Your task to perform on an android device: check google app version Image 0: 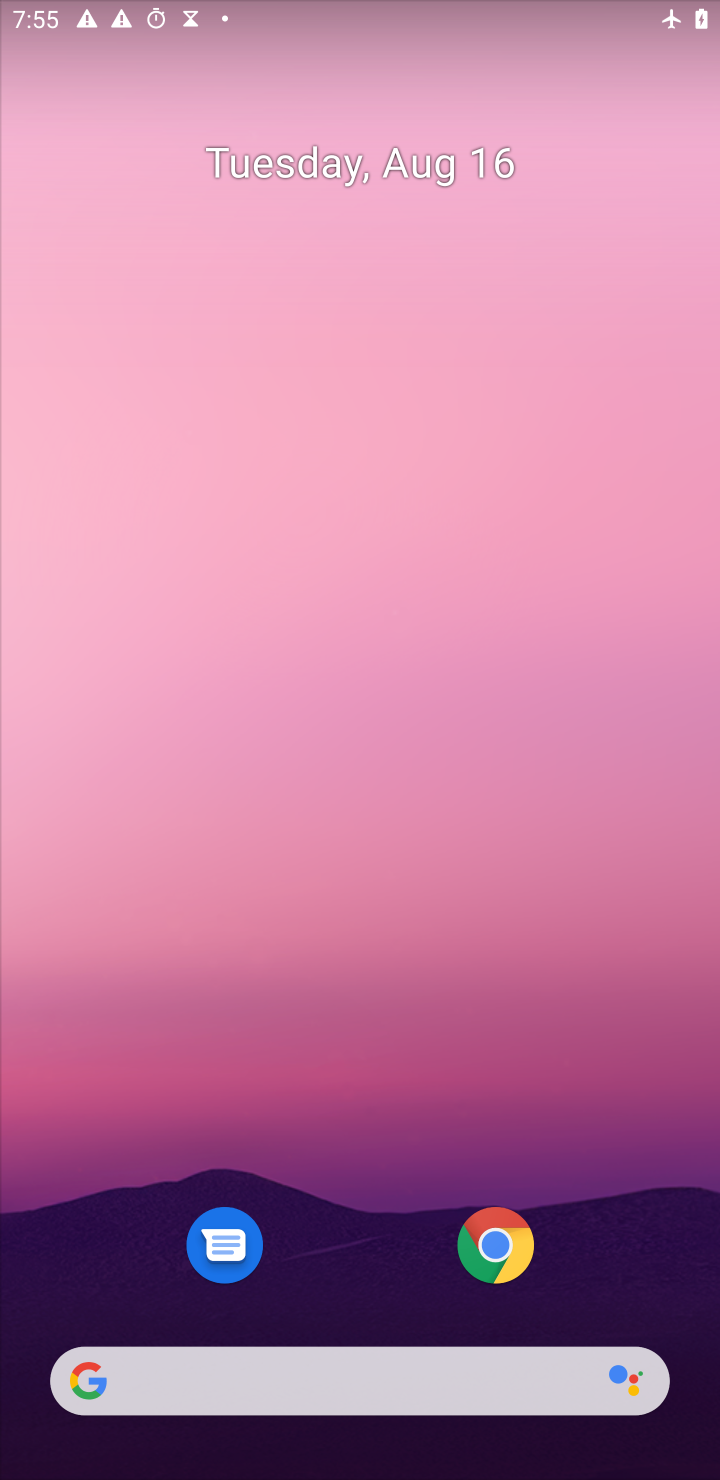
Step 0: press home button
Your task to perform on an android device: check google app version Image 1: 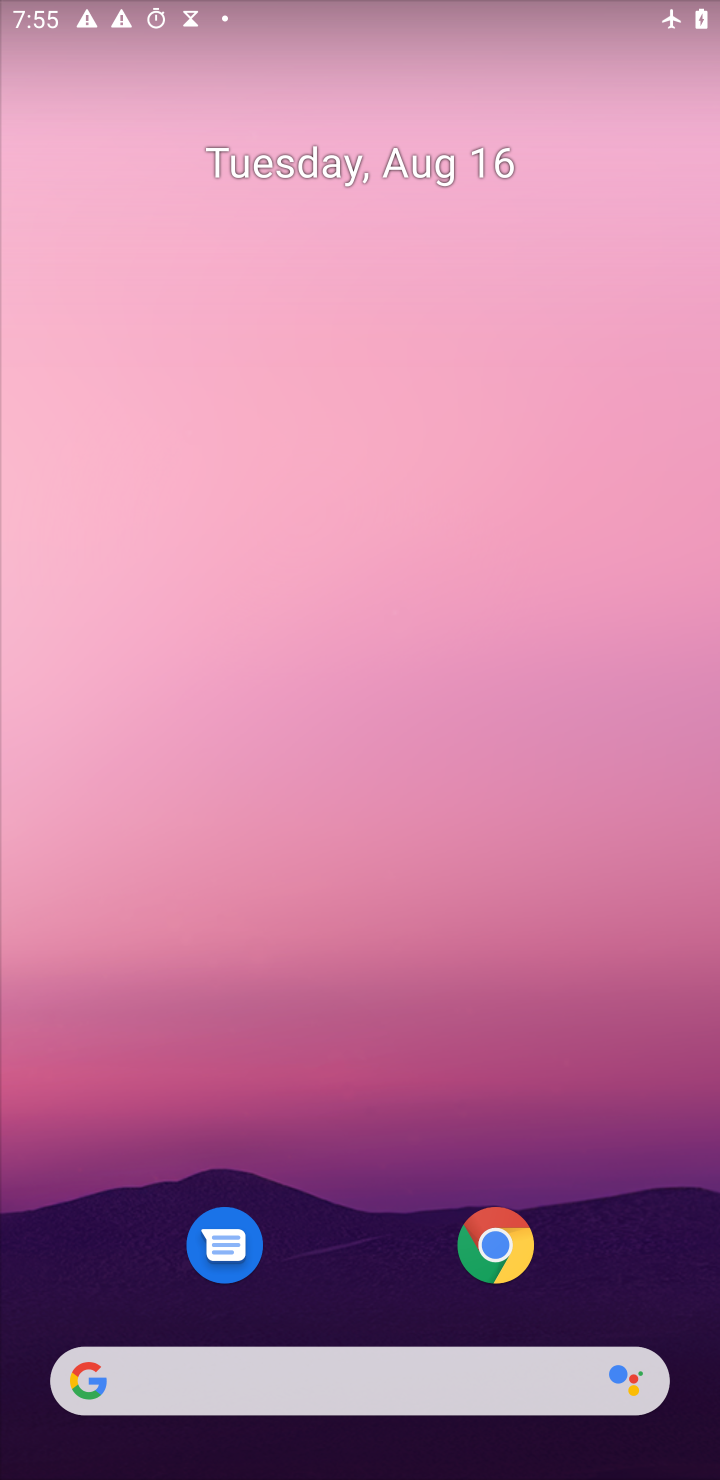
Step 1: drag from (347, 1279) to (349, 114)
Your task to perform on an android device: check google app version Image 2: 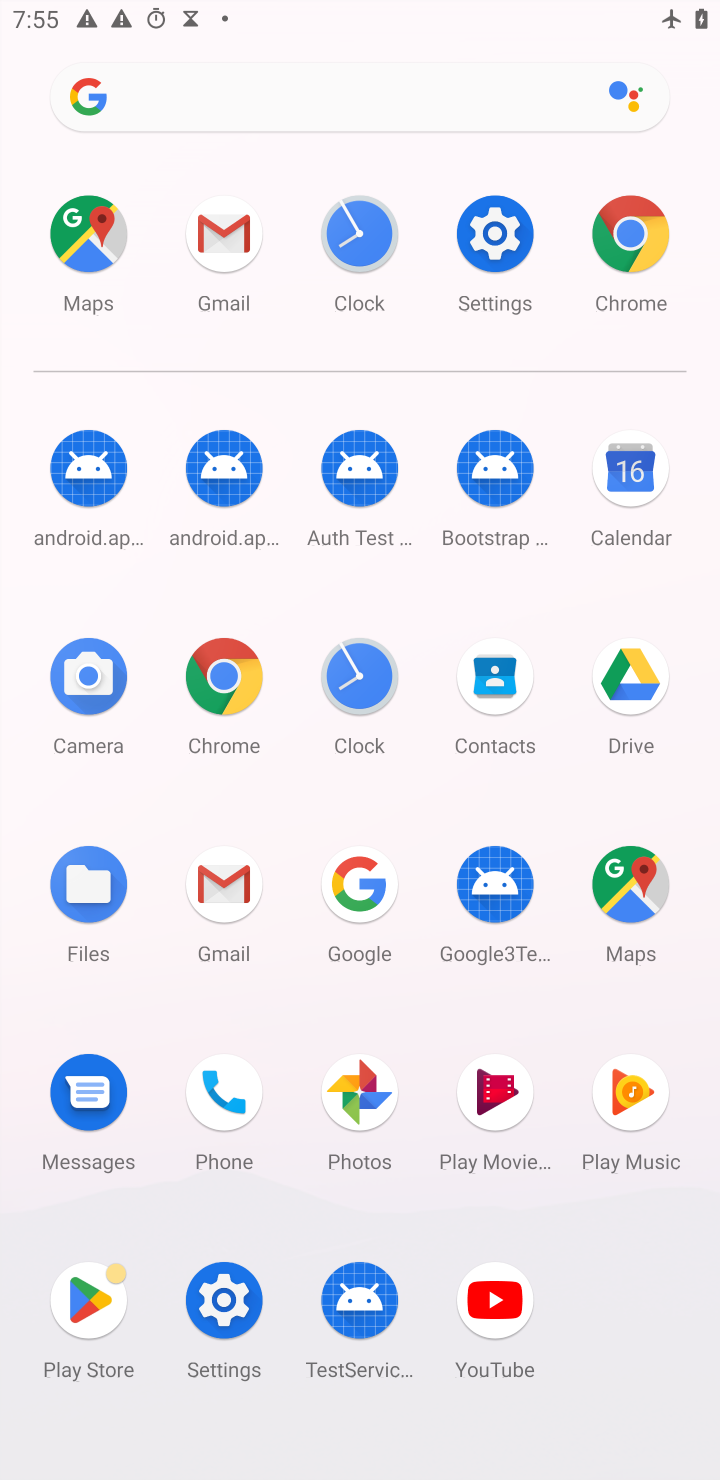
Step 2: click (362, 885)
Your task to perform on an android device: check google app version Image 3: 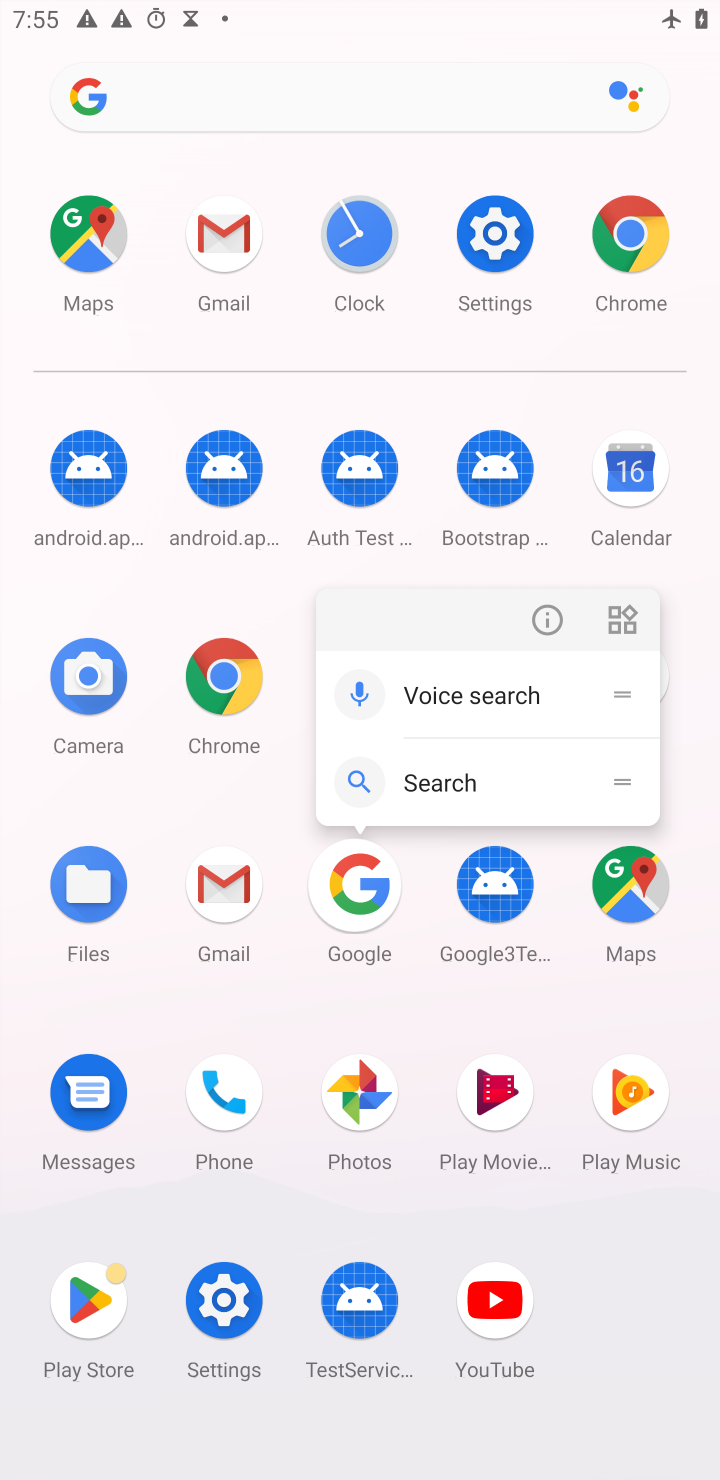
Step 3: click (546, 615)
Your task to perform on an android device: check google app version Image 4: 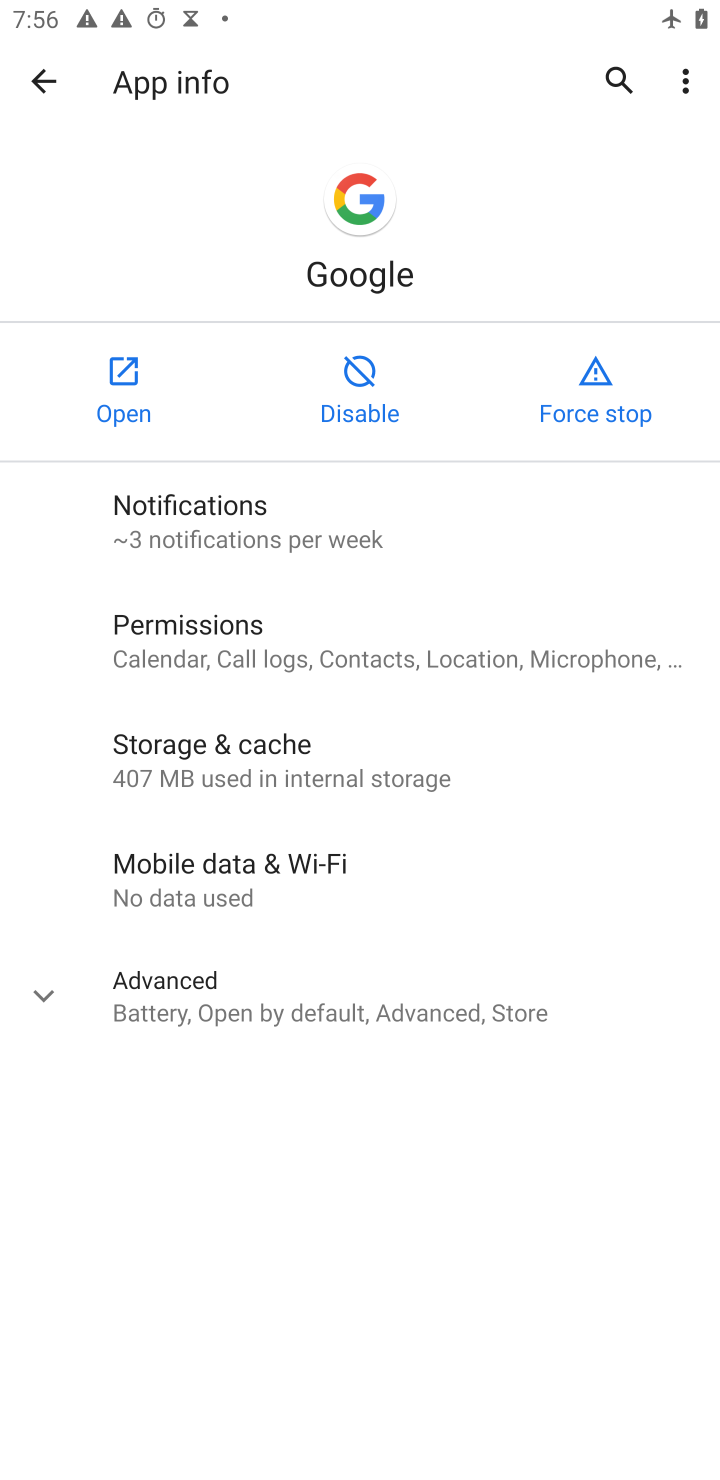
Step 4: click (49, 997)
Your task to perform on an android device: check google app version Image 5: 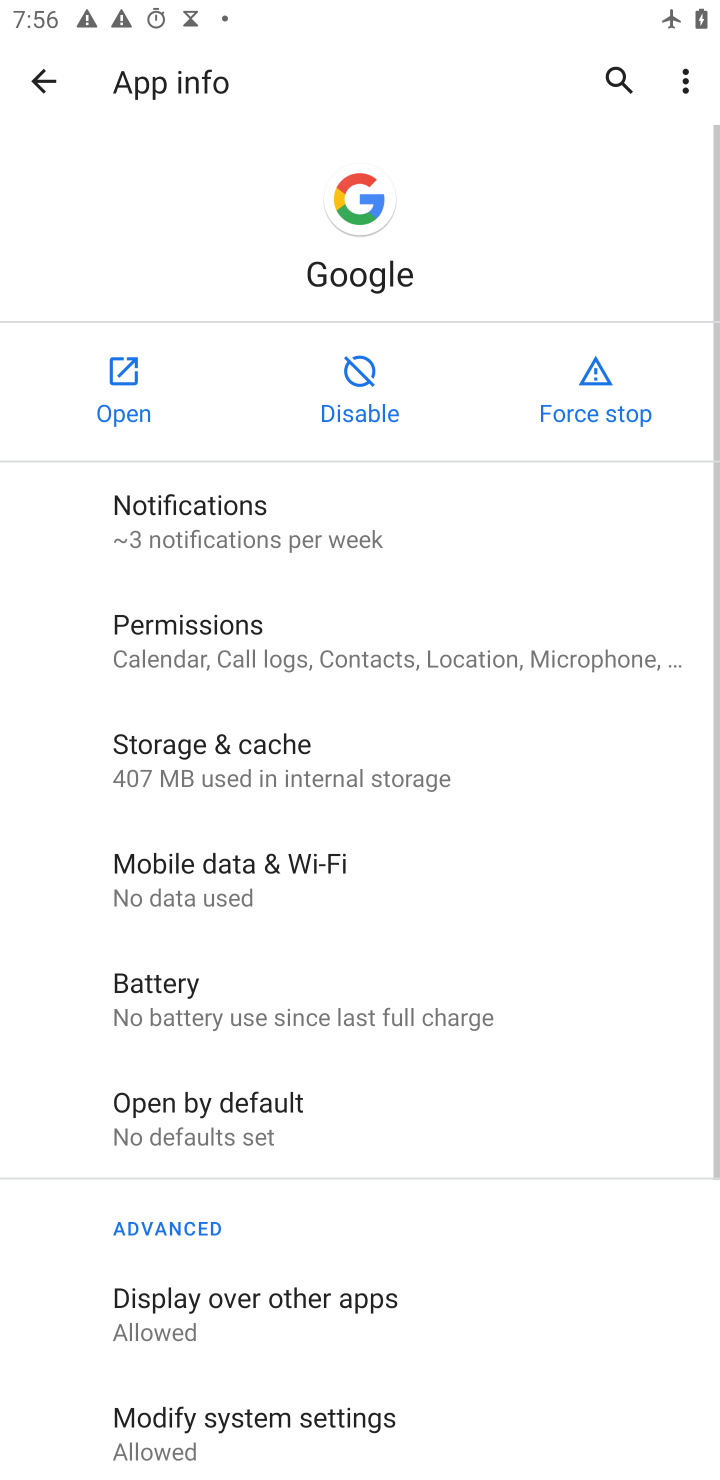
Step 5: task complete